Your task to perform on an android device: Open sound settings Image 0: 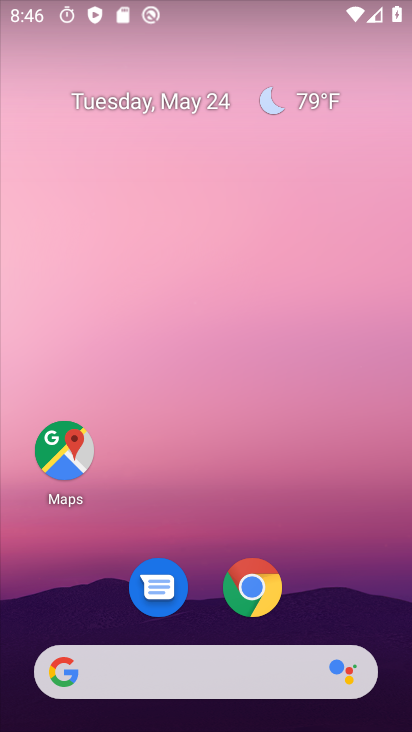
Step 0: drag from (319, 584) to (154, 93)
Your task to perform on an android device: Open sound settings Image 1: 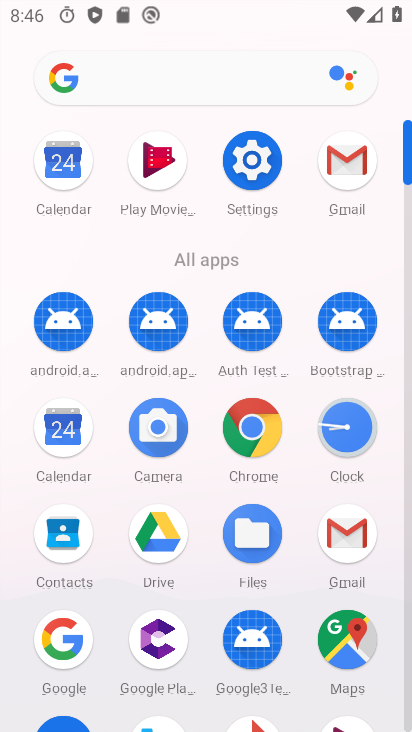
Step 1: click (251, 158)
Your task to perform on an android device: Open sound settings Image 2: 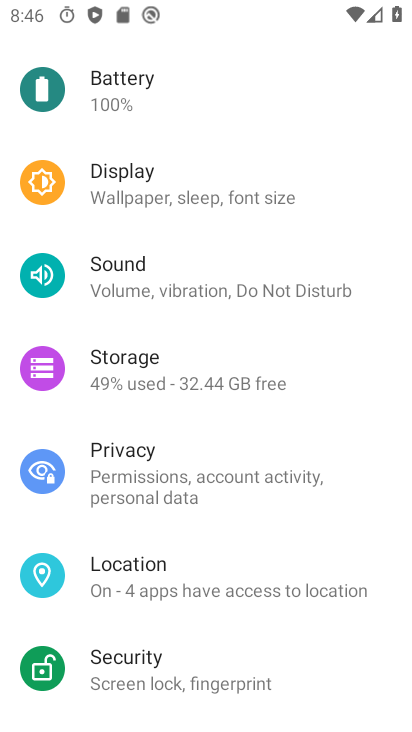
Step 2: click (215, 294)
Your task to perform on an android device: Open sound settings Image 3: 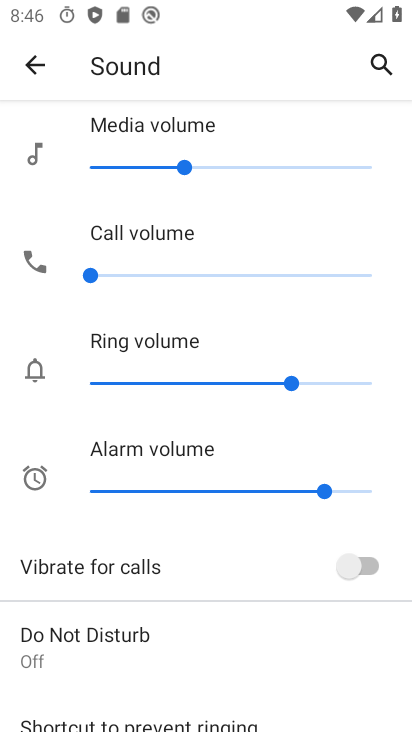
Step 3: task complete